Your task to perform on an android device: Show me productivity apps on the Play Store Image 0: 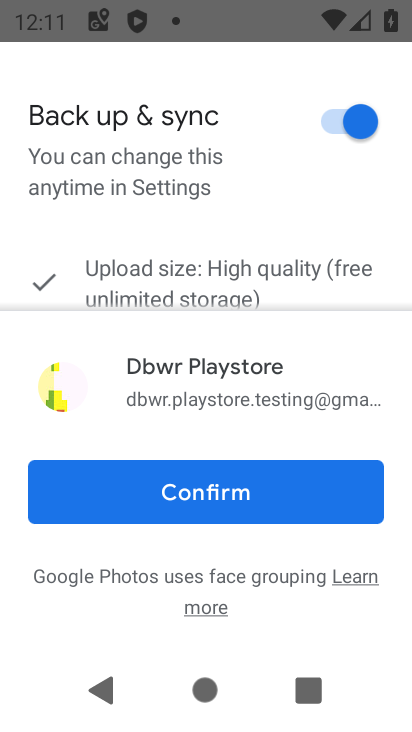
Step 0: press home button
Your task to perform on an android device: Show me productivity apps on the Play Store Image 1: 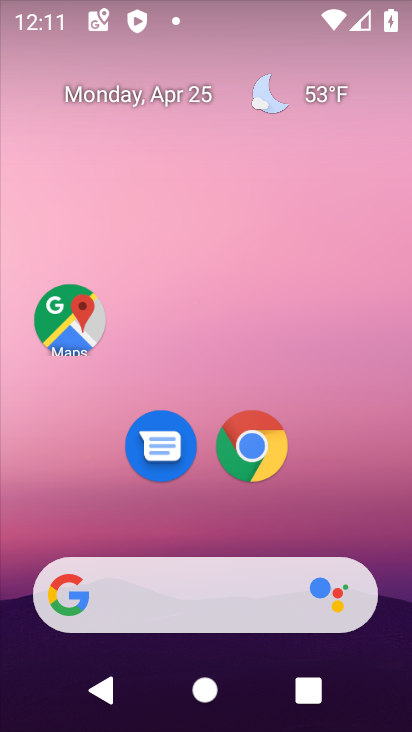
Step 1: drag from (209, 525) to (278, 3)
Your task to perform on an android device: Show me productivity apps on the Play Store Image 2: 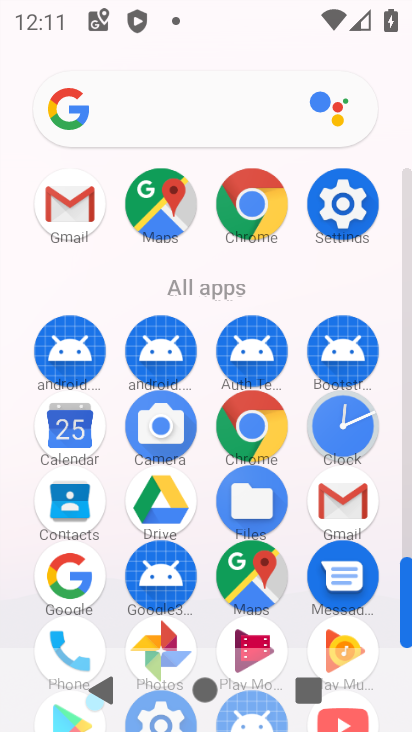
Step 2: drag from (205, 574) to (288, 115)
Your task to perform on an android device: Show me productivity apps on the Play Store Image 3: 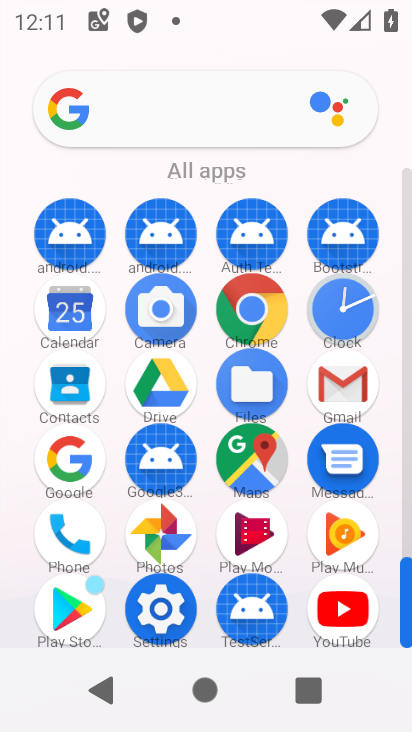
Step 3: click (69, 605)
Your task to perform on an android device: Show me productivity apps on the Play Store Image 4: 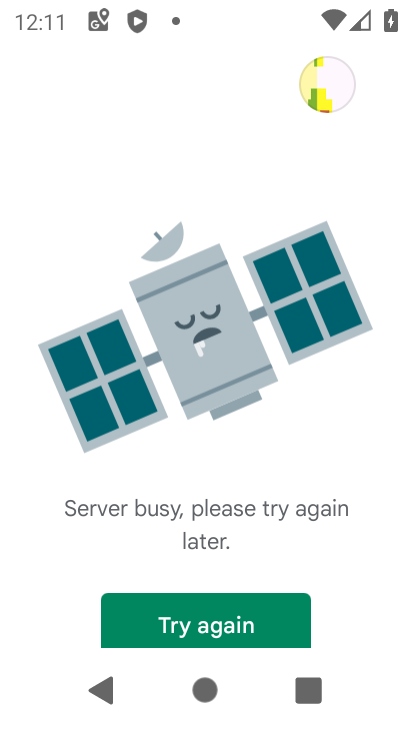
Step 4: click (203, 615)
Your task to perform on an android device: Show me productivity apps on the Play Store Image 5: 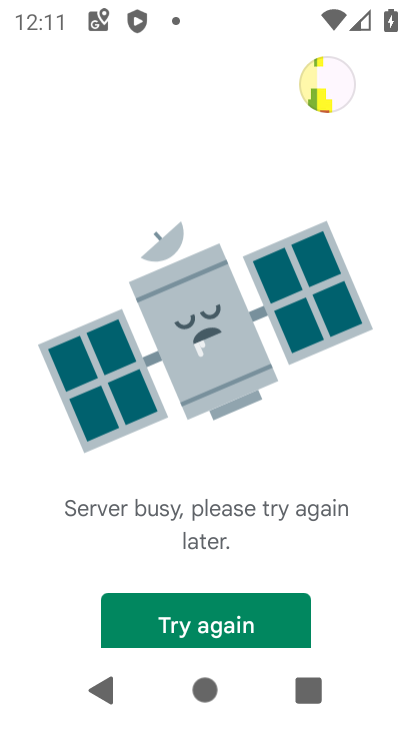
Step 5: click (200, 615)
Your task to perform on an android device: Show me productivity apps on the Play Store Image 6: 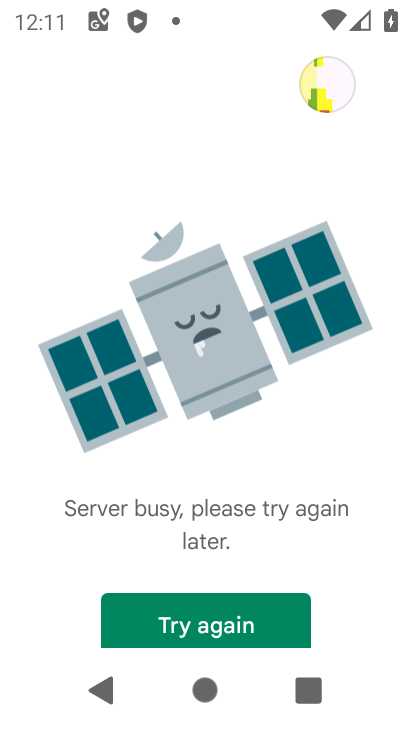
Step 6: task complete